Your task to perform on an android device: turn pop-ups off in chrome Image 0: 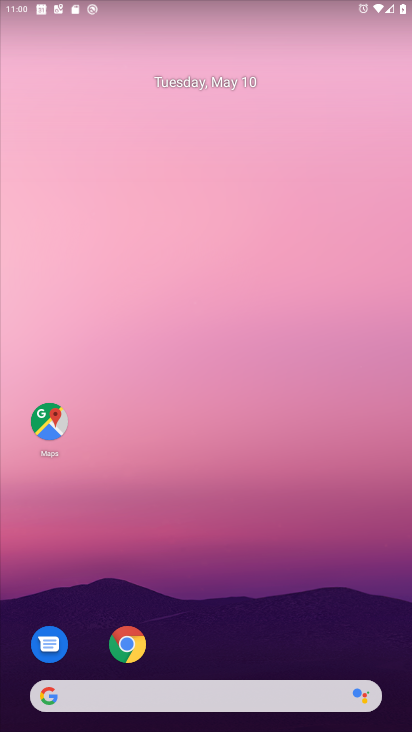
Step 0: drag from (245, 579) to (331, 146)
Your task to perform on an android device: turn pop-ups off in chrome Image 1: 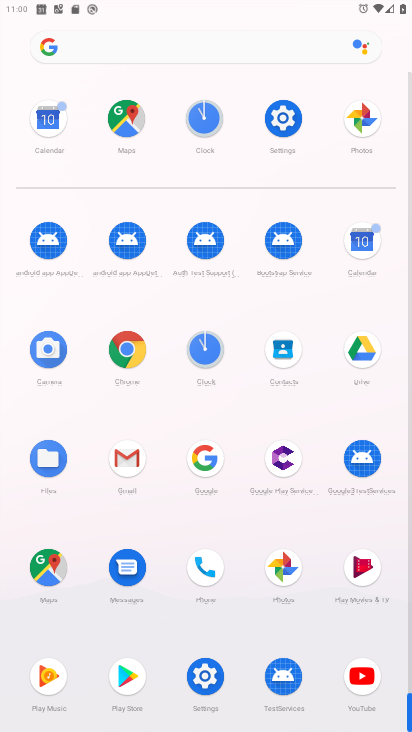
Step 1: click (135, 351)
Your task to perform on an android device: turn pop-ups off in chrome Image 2: 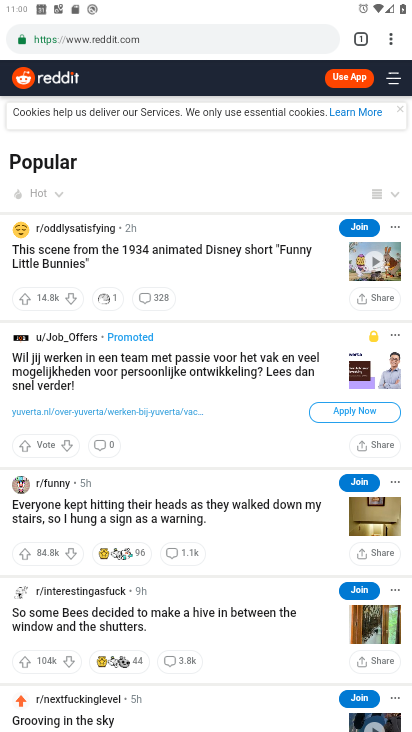
Step 2: click (392, 43)
Your task to perform on an android device: turn pop-ups off in chrome Image 3: 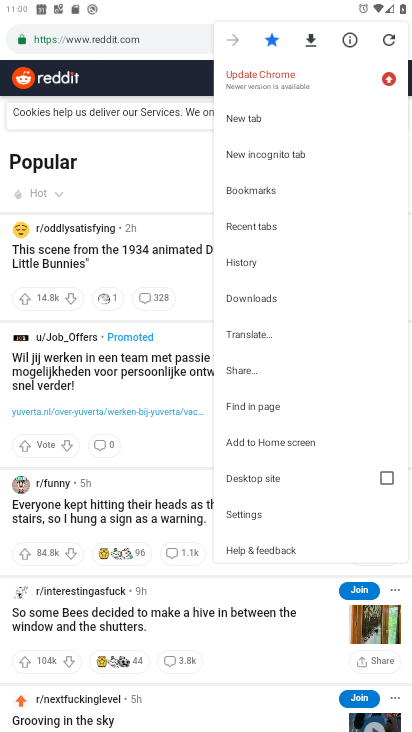
Step 3: click (257, 511)
Your task to perform on an android device: turn pop-ups off in chrome Image 4: 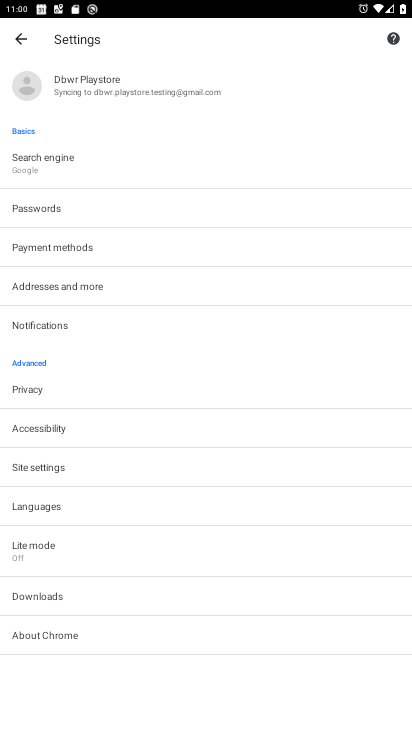
Step 4: click (99, 473)
Your task to perform on an android device: turn pop-ups off in chrome Image 5: 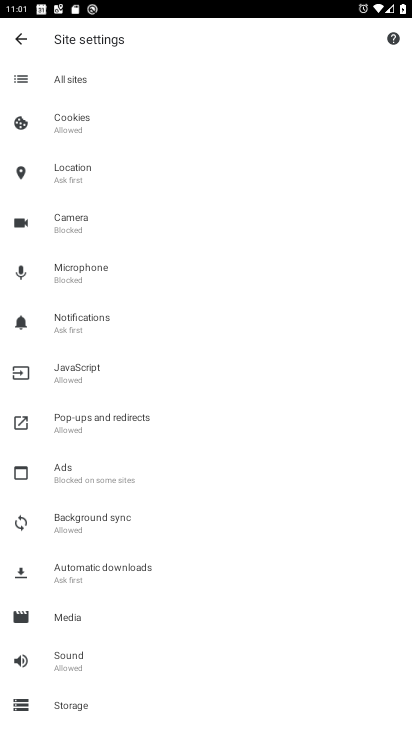
Step 5: click (150, 424)
Your task to perform on an android device: turn pop-ups off in chrome Image 6: 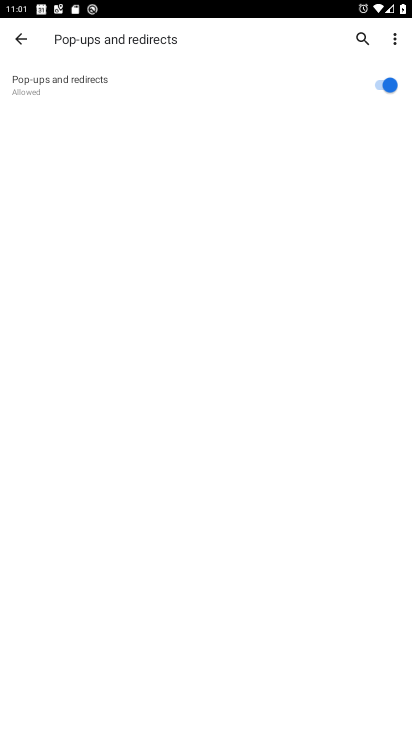
Step 6: task complete